Your task to perform on an android device: turn on wifi Image 0: 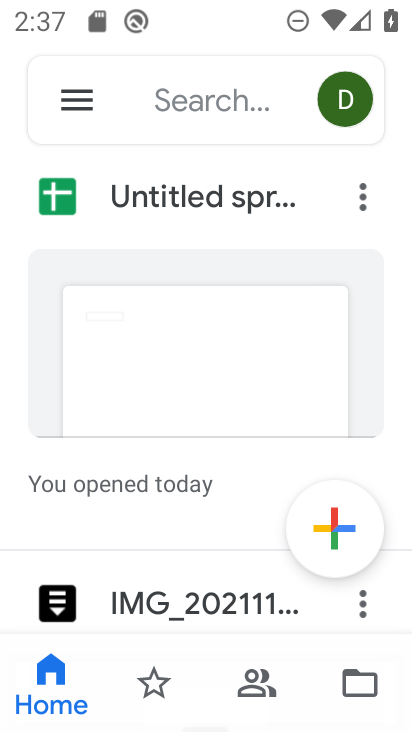
Step 0: press home button
Your task to perform on an android device: turn on wifi Image 1: 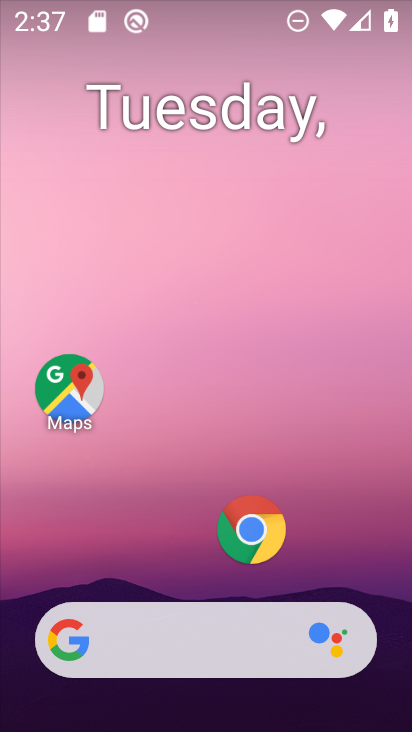
Step 1: drag from (246, 671) to (182, 191)
Your task to perform on an android device: turn on wifi Image 2: 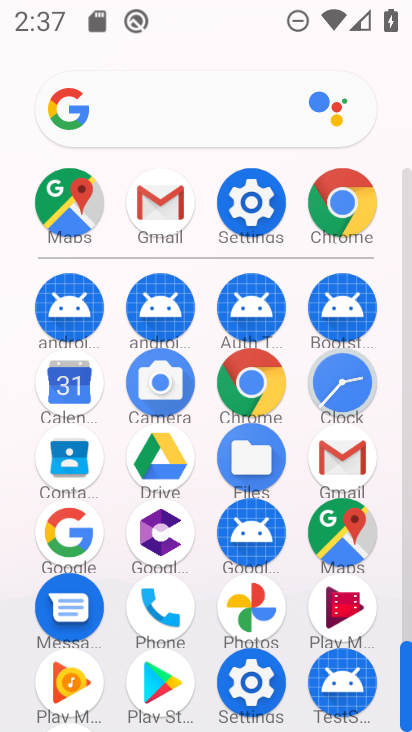
Step 2: click (267, 199)
Your task to perform on an android device: turn on wifi Image 3: 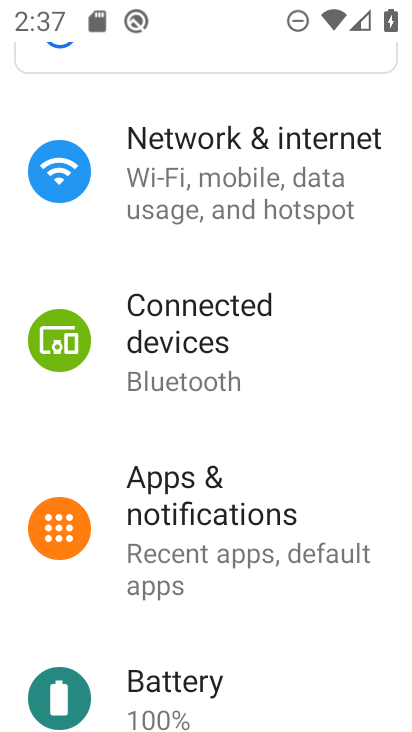
Step 3: click (185, 215)
Your task to perform on an android device: turn on wifi Image 4: 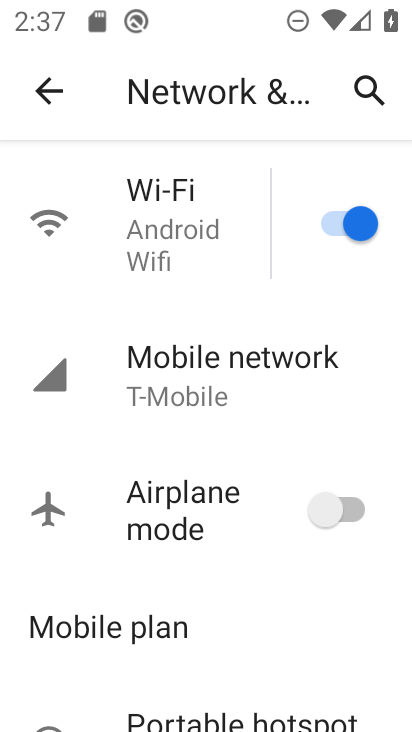
Step 4: click (166, 218)
Your task to perform on an android device: turn on wifi Image 5: 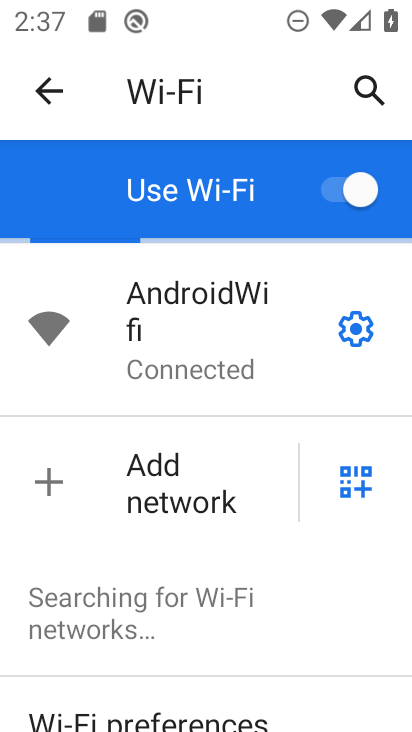
Step 5: task complete